Your task to perform on an android device: find snoozed emails in the gmail app Image 0: 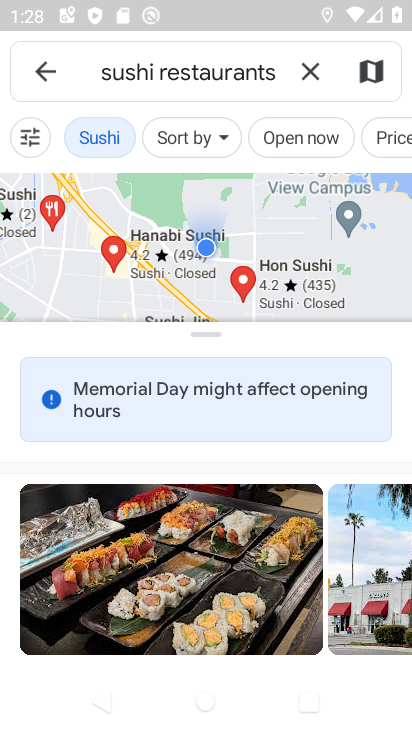
Step 0: press home button
Your task to perform on an android device: find snoozed emails in the gmail app Image 1: 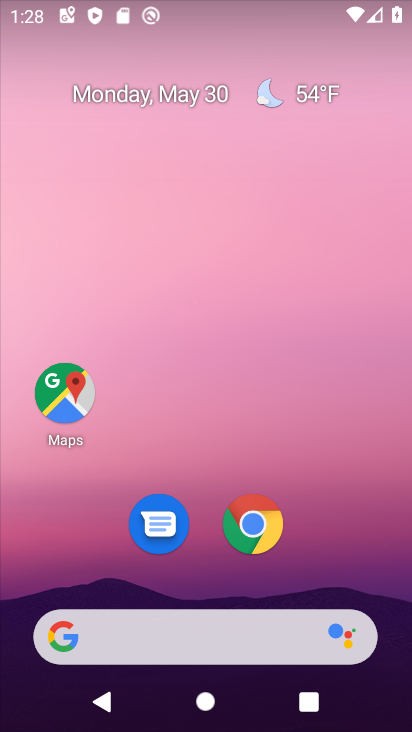
Step 1: drag from (259, 463) to (284, 31)
Your task to perform on an android device: find snoozed emails in the gmail app Image 2: 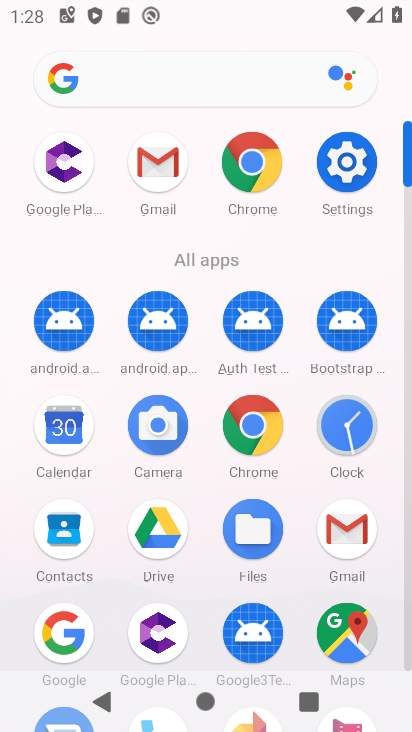
Step 2: click (162, 163)
Your task to perform on an android device: find snoozed emails in the gmail app Image 3: 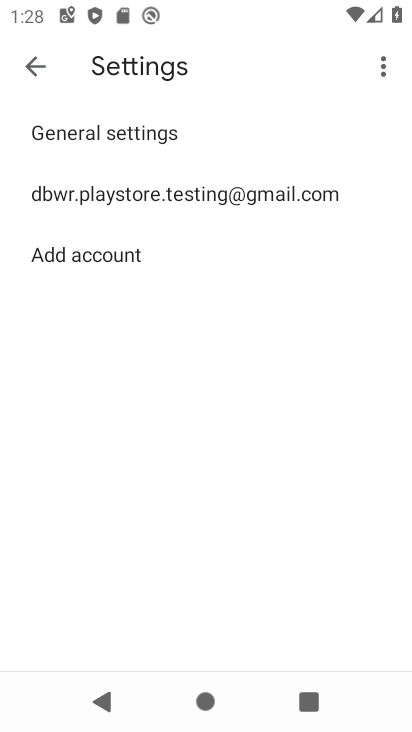
Step 3: click (35, 61)
Your task to perform on an android device: find snoozed emails in the gmail app Image 4: 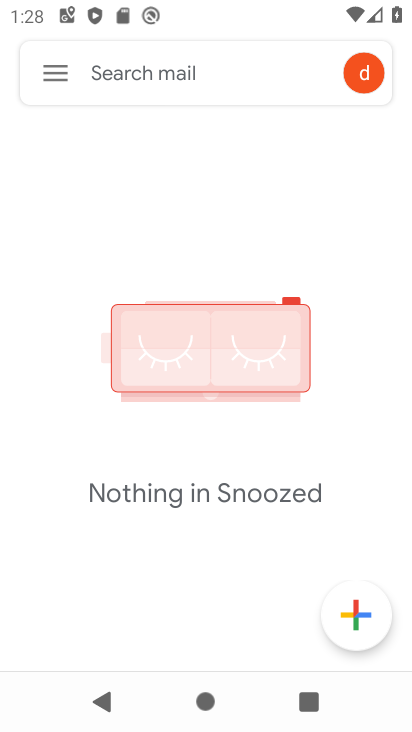
Step 4: click (46, 72)
Your task to perform on an android device: find snoozed emails in the gmail app Image 5: 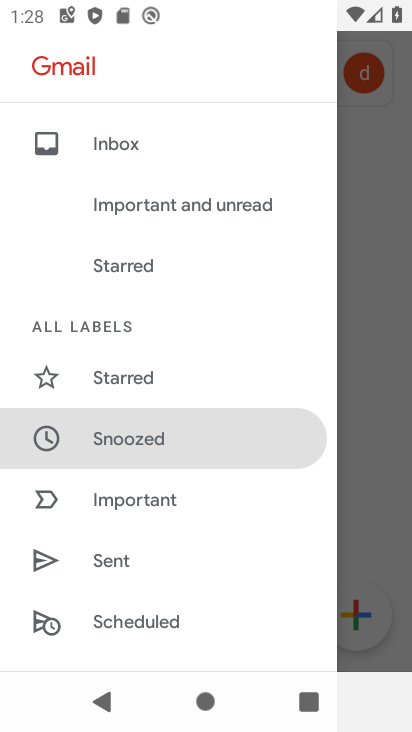
Step 5: click (213, 436)
Your task to perform on an android device: find snoozed emails in the gmail app Image 6: 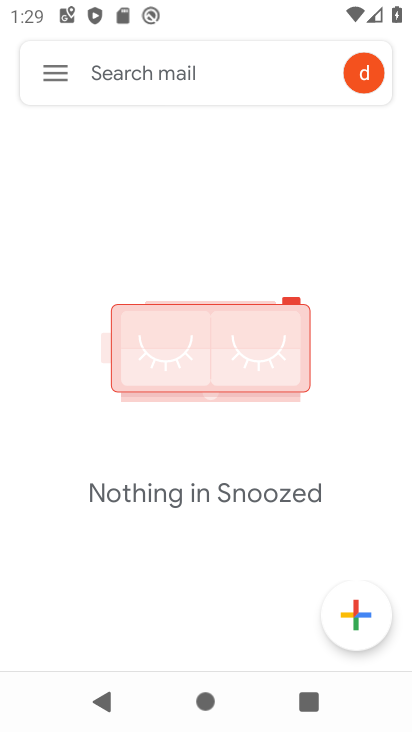
Step 6: task complete